Your task to perform on an android device: turn off priority inbox in the gmail app Image 0: 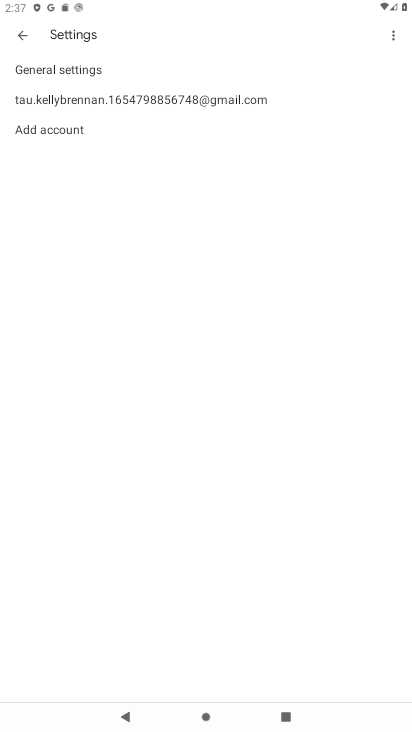
Step 0: press home button
Your task to perform on an android device: turn off priority inbox in the gmail app Image 1: 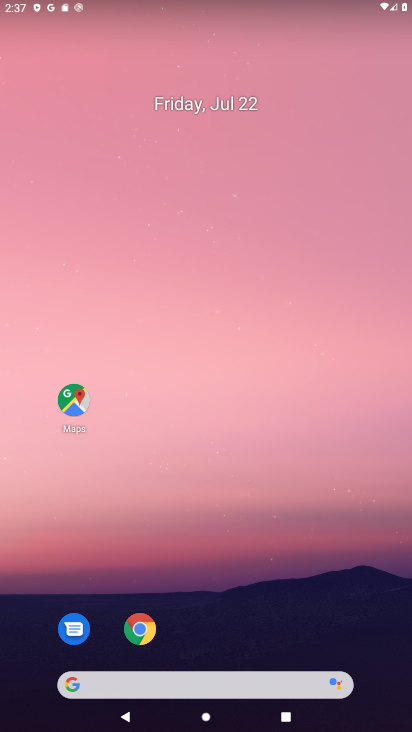
Step 1: drag from (241, 593) to (258, 8)
Your task to perform on an android device: turn off priority inbox in the gmail app Image 2: 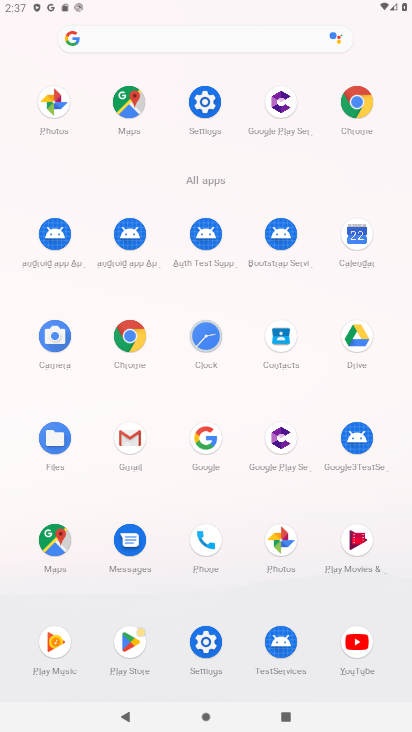
Step 2: click (125, 432)
Your task to perform on an android device: turn off priority inbox in the gmail app Image 3: 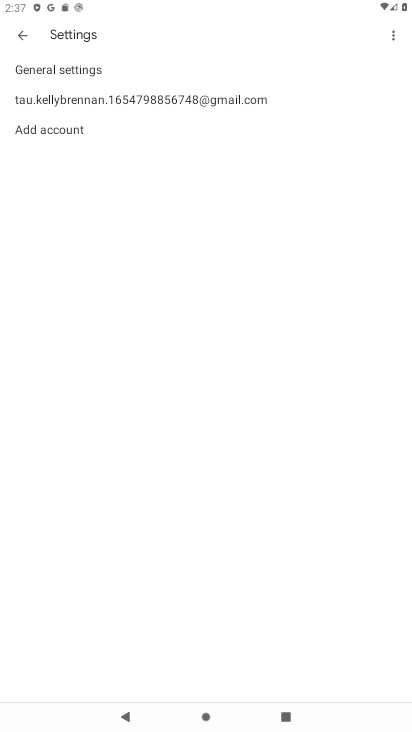
Step 3: click (31, 94)
Your task to perform on an android device: turn off priority inbox in the gmail app Image 4: 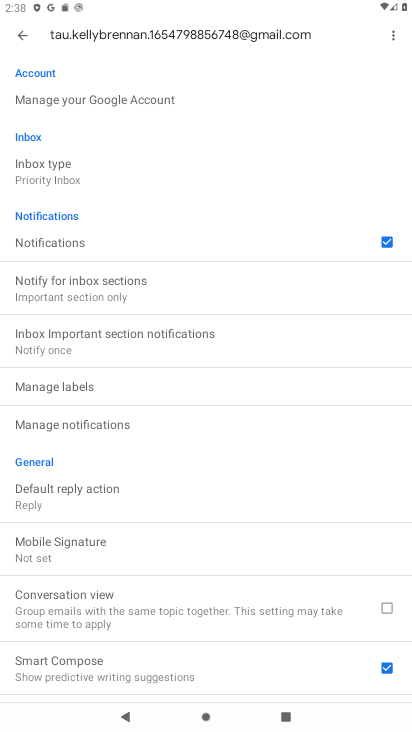
Step 4: click (35, 166)
Your task to perform on an android device: turn off priority inbox in the gmail app Image 5: 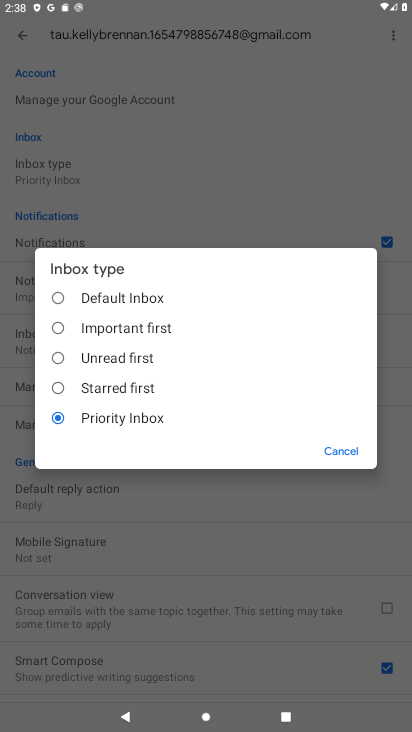
Step 5: click (57, 298)
Your task to perform on an android device: turn off priority inbox in the gmail app Image 6: 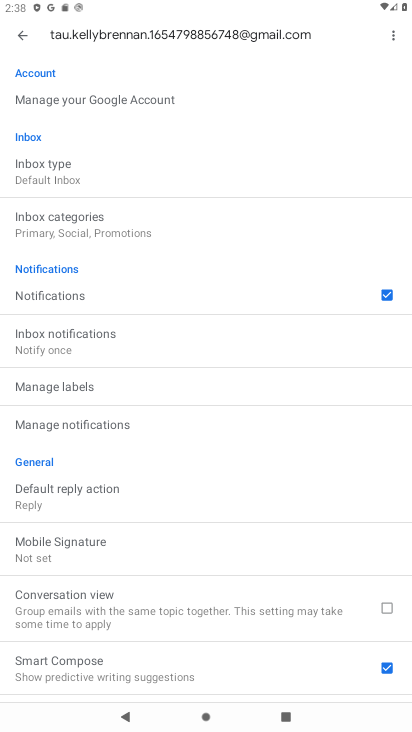
Step 6: task complete